Your task to perform on an android device: stop showing notifications on the lock screen Image 0: 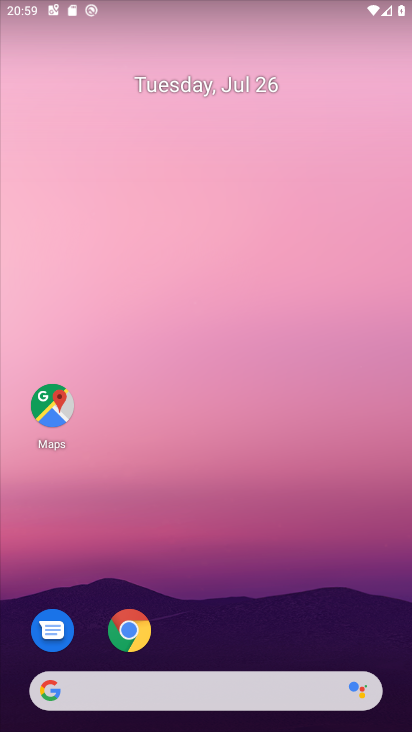
Step 0: drag from (386, 599) to (274, 107)
Your task to perform on an android device: stop showing notifications on the lock screen Image 1: 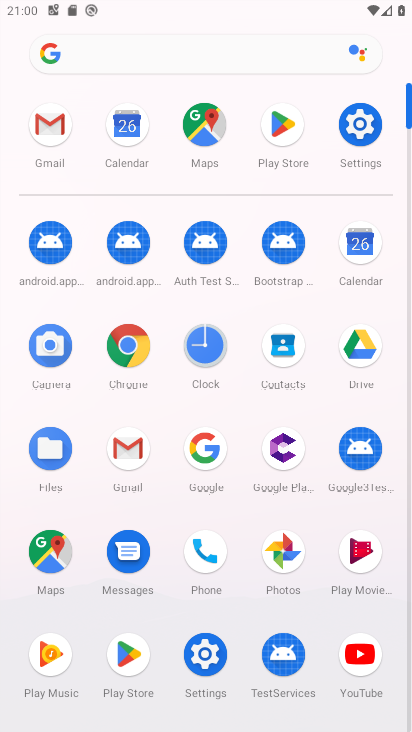
Step 1: click (354, 130)
Your task to perform on an android device: stop showing notifications on the lock screen Image 2: 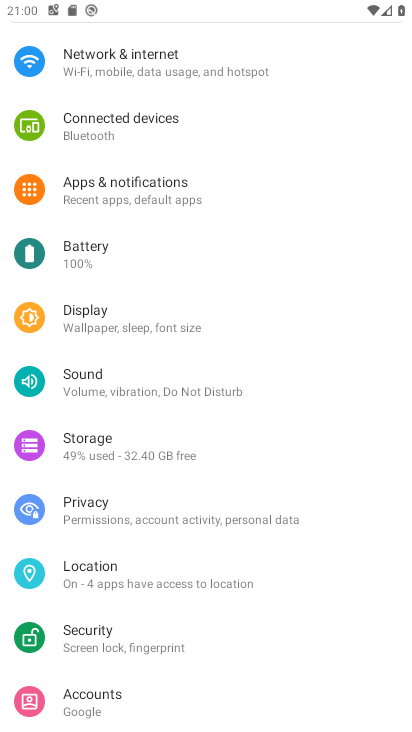
Step 2: drag from (245, 669) to (218, 274)
Your task to perform on an android device: stop showing notifications on the lock screen Image 3: 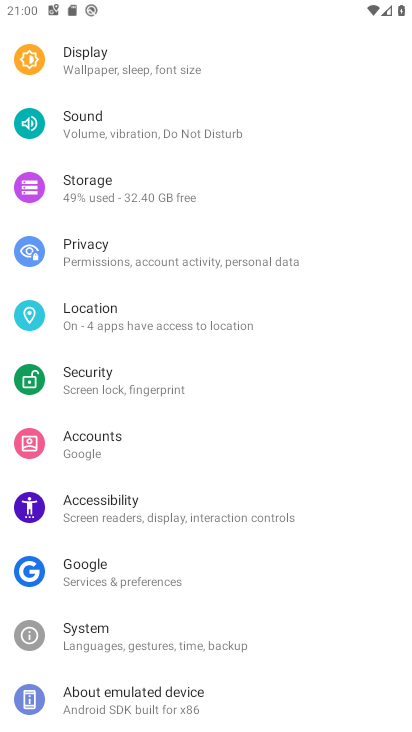
Step 3: drag from (295, 140) to (305, 540)
Your task to perform on an android device: stop showing notifications on the lock screen Image 4: 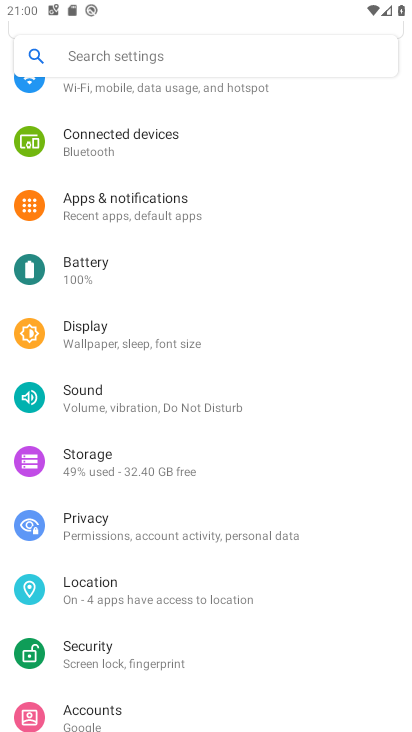
Step 4: click (115, 202)
Your task to perform on an android device: stop showing notifications on the lock screen Image 5: 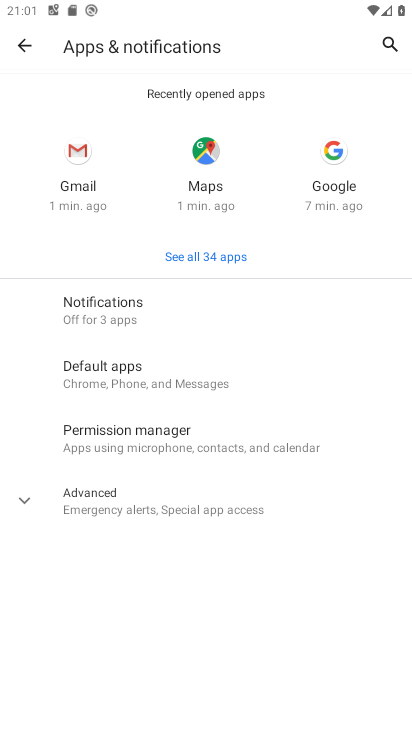
Step 5: click (106, 309)
Your task to perform on an android device: stop showing notifications on the lock screen Image 6: 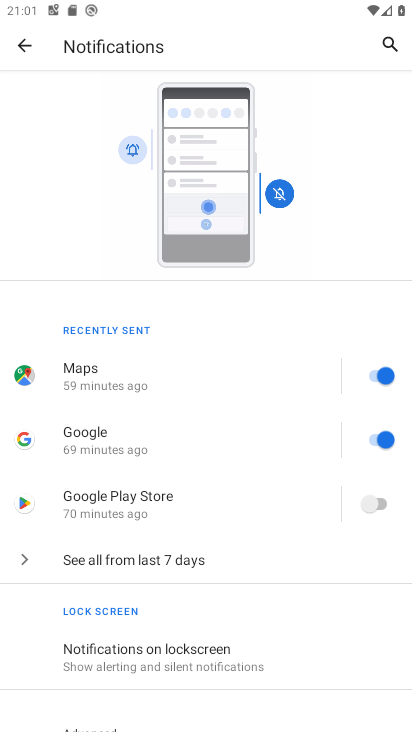
Step 6: click (103, 645)
Your task to perform on an android device: stop showing notifications on the lock screen Image 7: 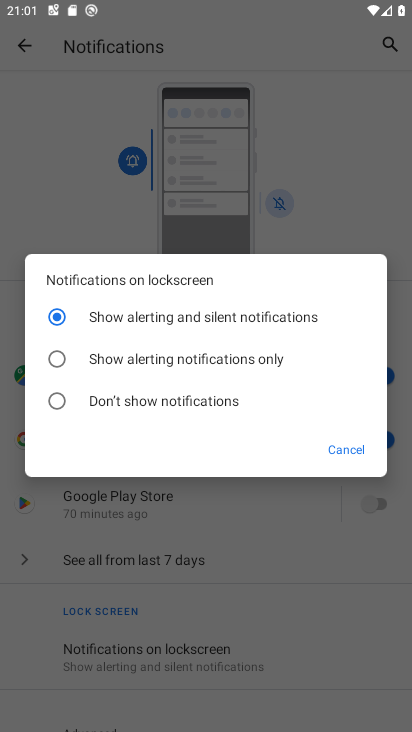
Step 7: click (55, 401)
Your task to perform on an android device: stop showing notifications on the lock screen Image 8: 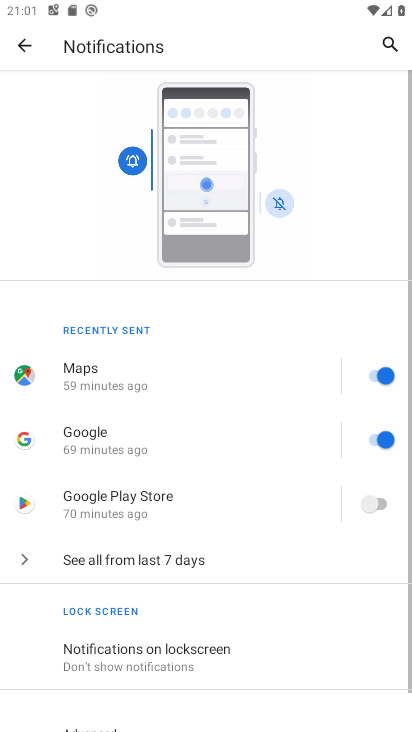
Step 8: task complete